Your task to perform on an android device: choose inbox layout in the gmail app Image 0: 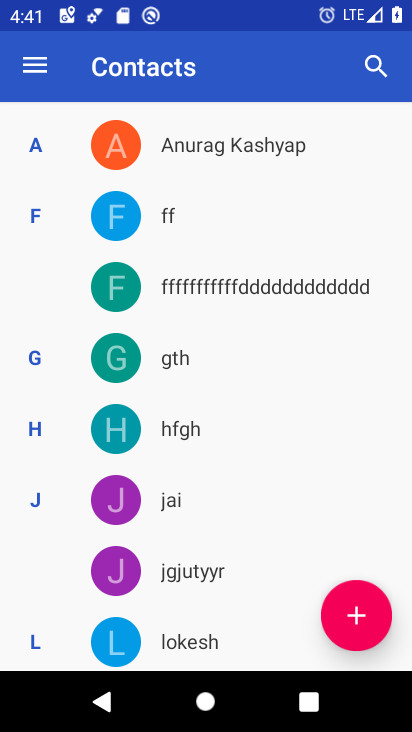
Step 0: press home button
Your task to perform on an android device: choose inbox layout in the gmail app Image 1: 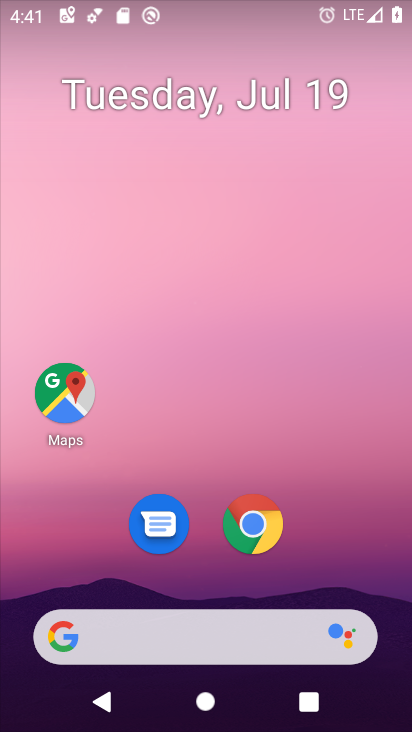
Step 1: drag from (343, 554) to (338, 119)
Your task to perform on an android device: choose inbox layout in the gmail app Image 2: 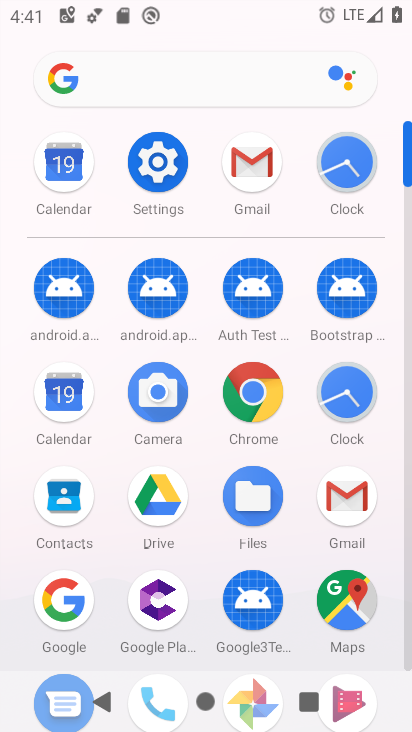
Step 2: click (256, 154)
Your task to perform on an android device: choose inbox layout in the gmail app Image 3: 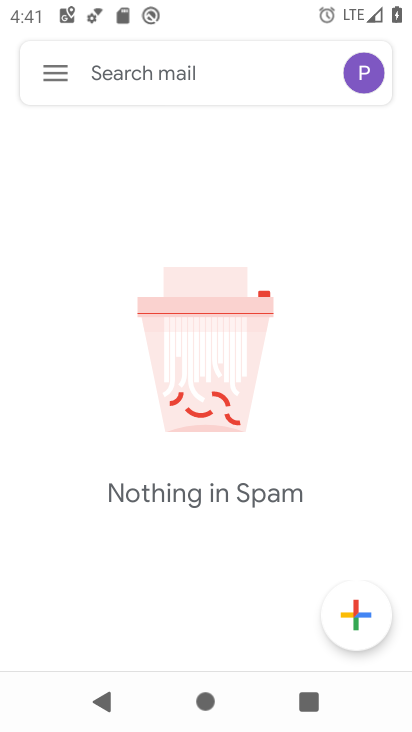
Step 3: click (60, 78)
Your task to perform on an android device: choose inbox layout in the gmail app Image 4: 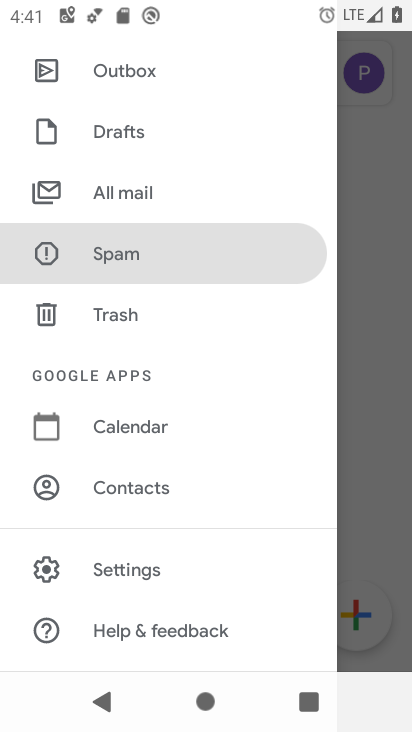
Step 4: click (109, 571)
Your task to perform on an android device: choose inbox layout in the gmail app Image 5: 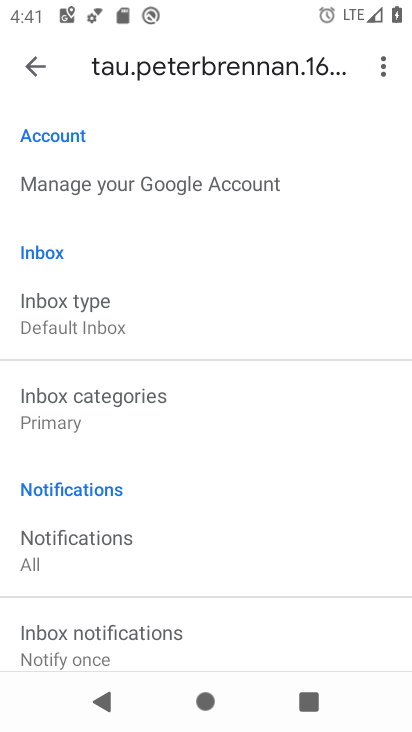
Step 5: click (104, 307)
Your task to perform on an android device: choose inbox layout in the gmail app Image 6: 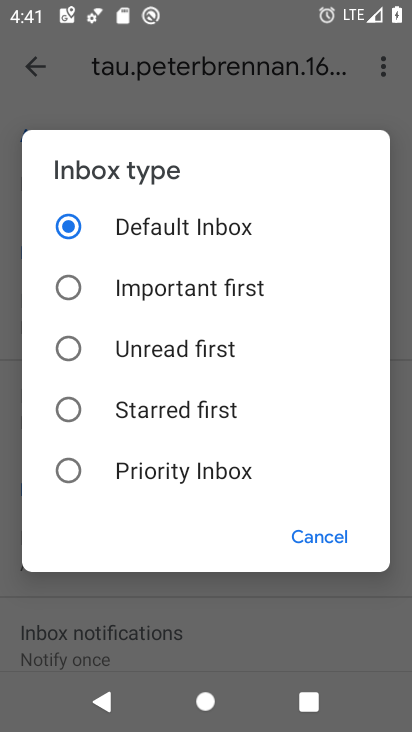
Step 6: click (103, 285)
Your task to perform on an android device: choose inbox layout in the gmail app Image 7: 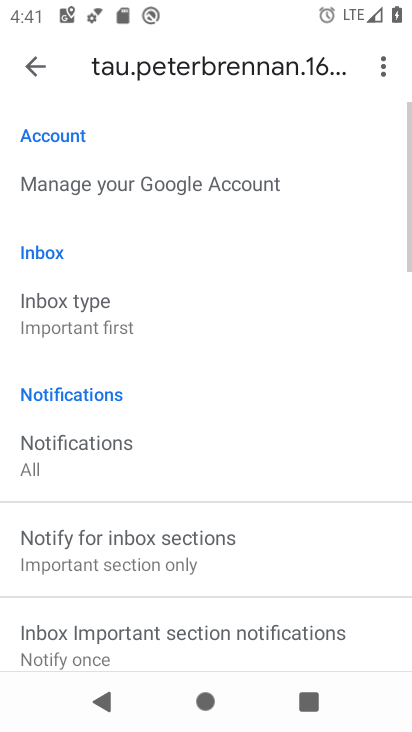
Step 7: task complete